Your task to perform on an android device: Check the news Image 0: 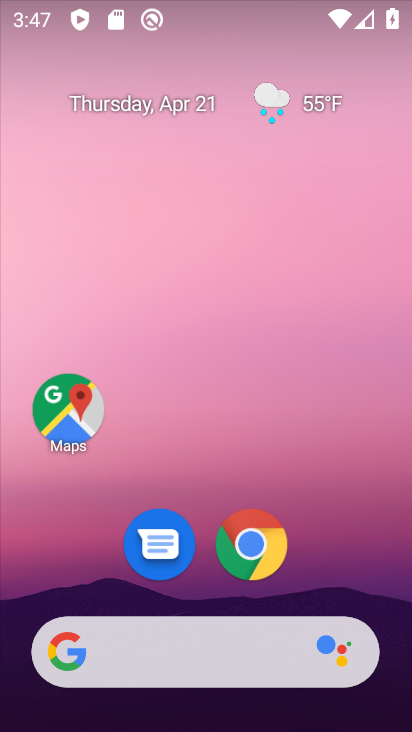
Step 0: drag from (206, 644) to (216, 48)
Your task to perform on an android device: Check the news Image 1: 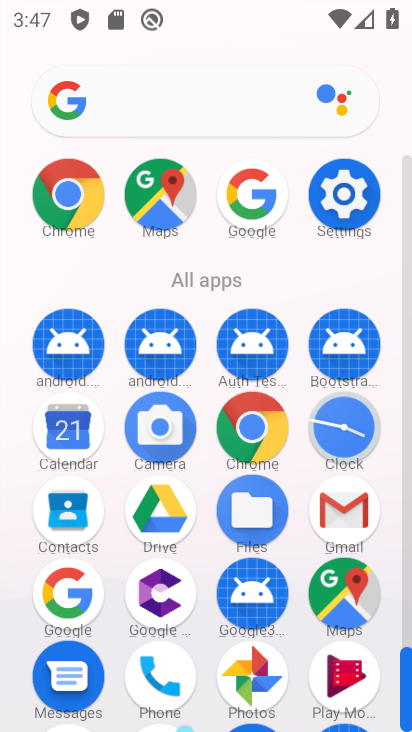
Step 1: click (70, 583)
Your task to perform on an android device: Check the news Image 2: 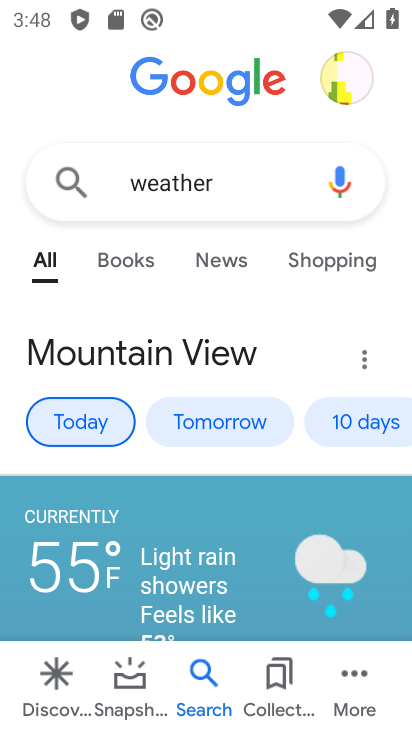
Step 2: click (223, 251)
Your task to perform on an android device: Check the news Image 3: 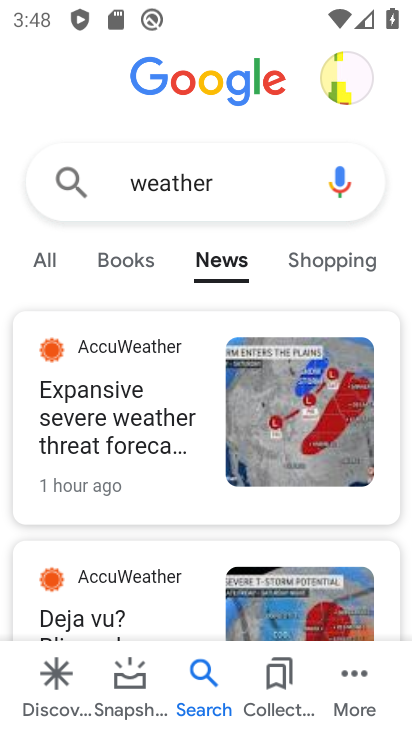
Step 3: task complete